Your task to perform on an android device: Show me popular videos on Youtube Image 0: 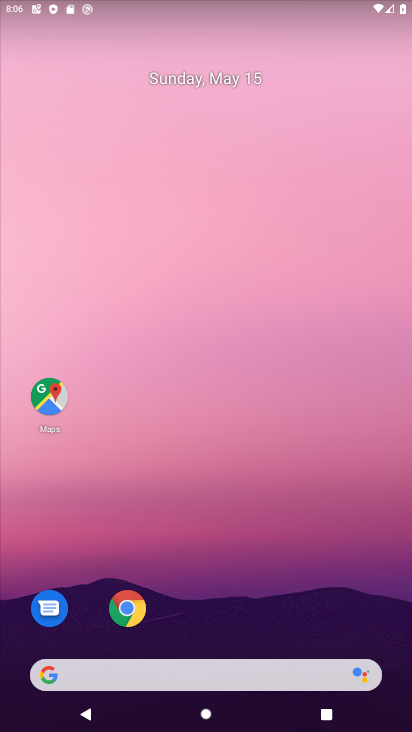
Step 0: drag from (388, 658) to (204, 198)
Your task to perform on an android device: Show me popular videos on Youtube Image 1: 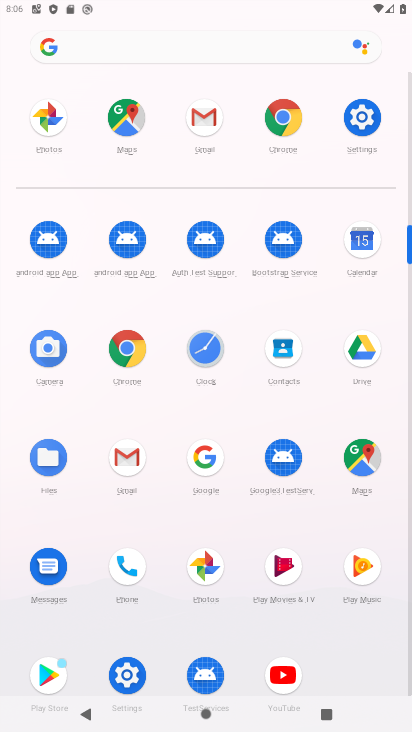
Step 1: click (277, 664)
Your task to perform on an android device: Show me popular videos on Youtube Image 2: 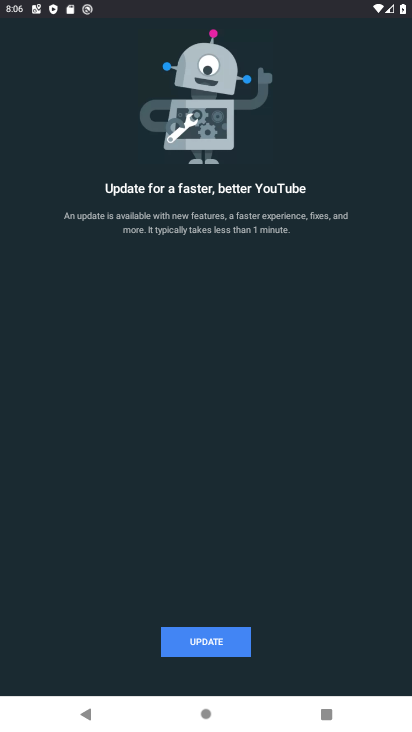
Step 2: click (191, 638)
Your task to perform on an android device: Show me popular videos on Youtube Image 3: 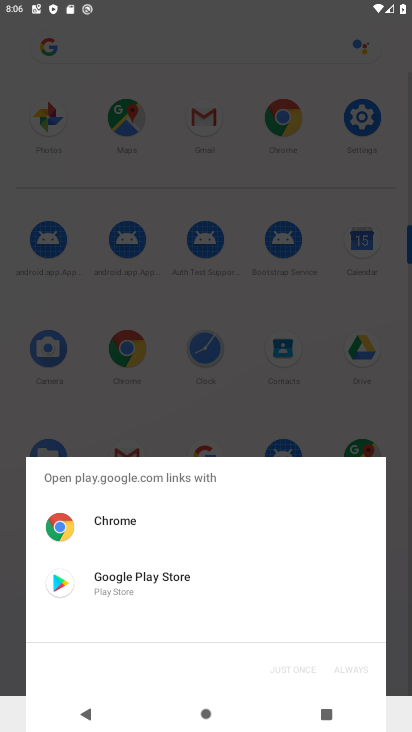
Step 3: click (110, 576)
Your task to perform on an android device: Show me popular videos on Youtube Image 4: 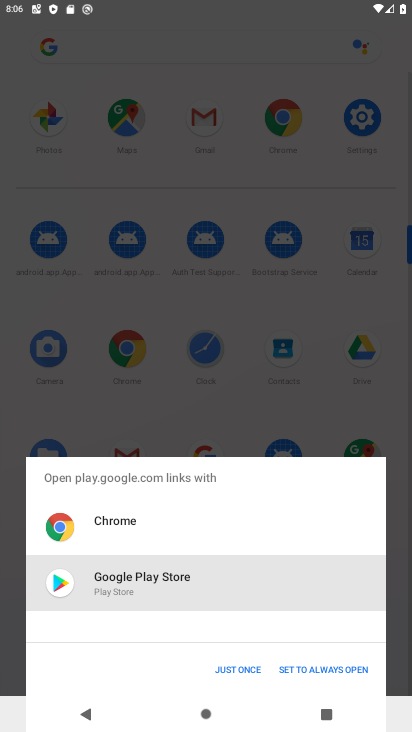
Step 4: click (123, 588)
Your task to perform on an android device: Show me popular videos on Youtube Image 5: 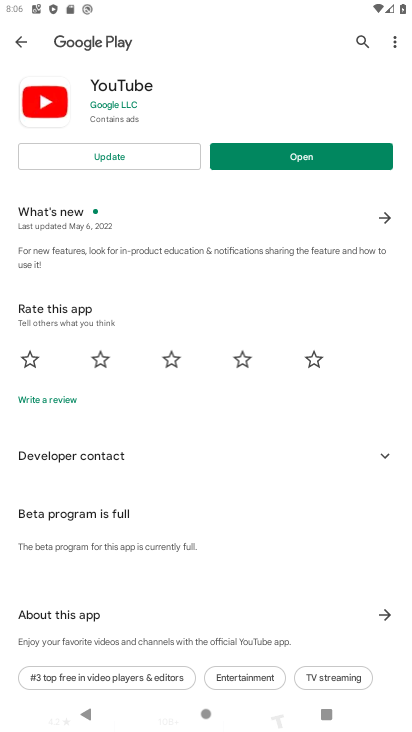
Step 5: click (120, 160)
Your task to perform on an android device: Show me popular videos on Youtube Image 6: 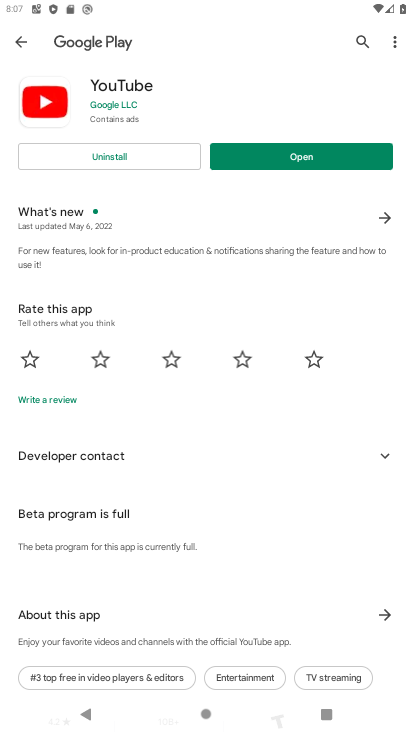
Step 6: click (308, 157)
Your task to perform on an android device: Show me popular videos on Youtube Image 7: 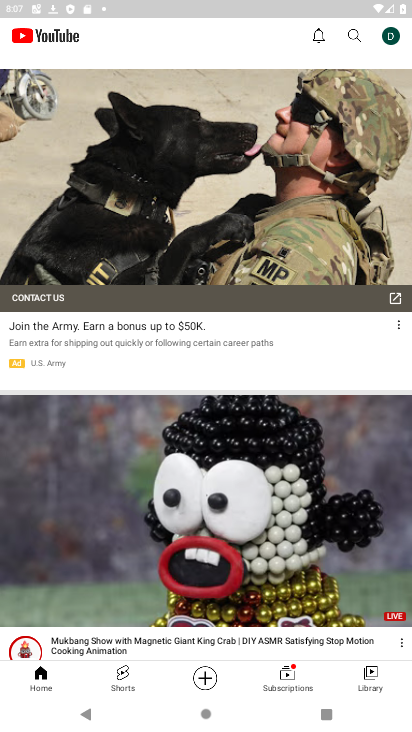
Step 7: drag from (202, 422) to (216, 91)
Your task to perform on an android device: Show me popular videos on Youtube Image 8: 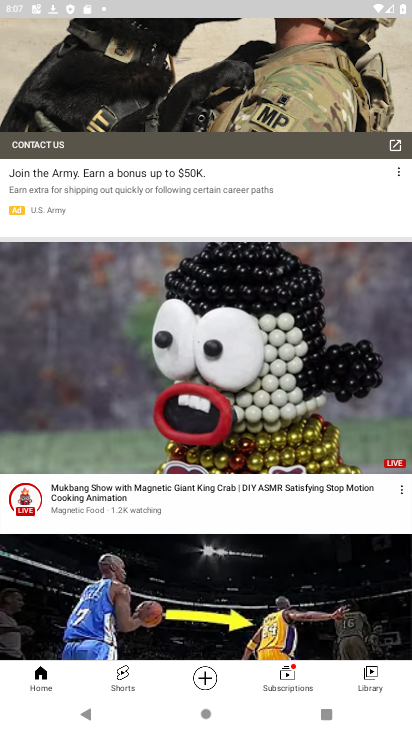
Step 8: drag from (260, 373) to (260, 204)
Your task to perform on an android device: Show me popular videos on Youtube Image 9: 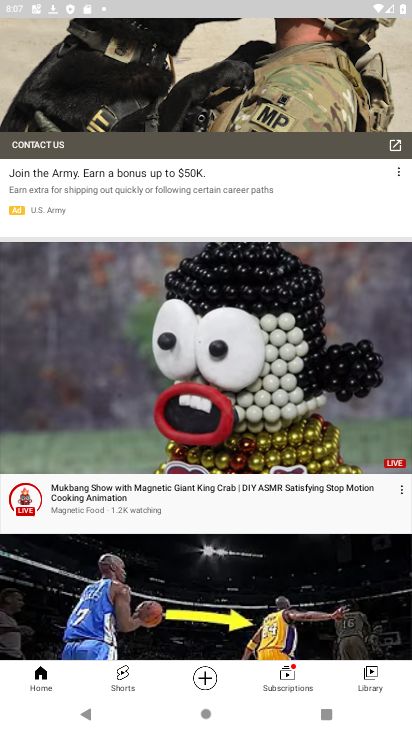
Step 9: drag from (251, 523) to (230, 290)
Your task to perform on an android device: Show me popular videos on Youtube Image 10: 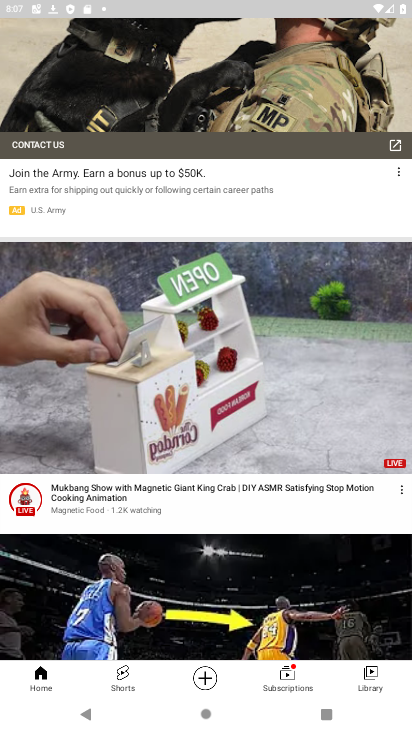
Step 10: click (222, 311)
Your task to perform on an android device: Show me popular videos on Youtube Image 11: 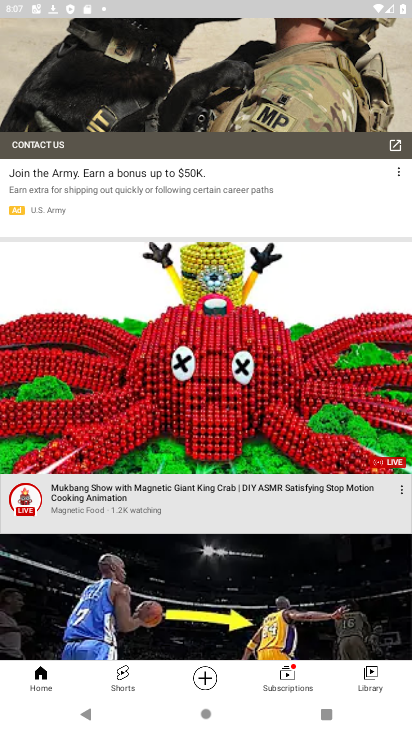
Step 11: task complete